Your task to perform on an android device: change text size in settings app Image 0: 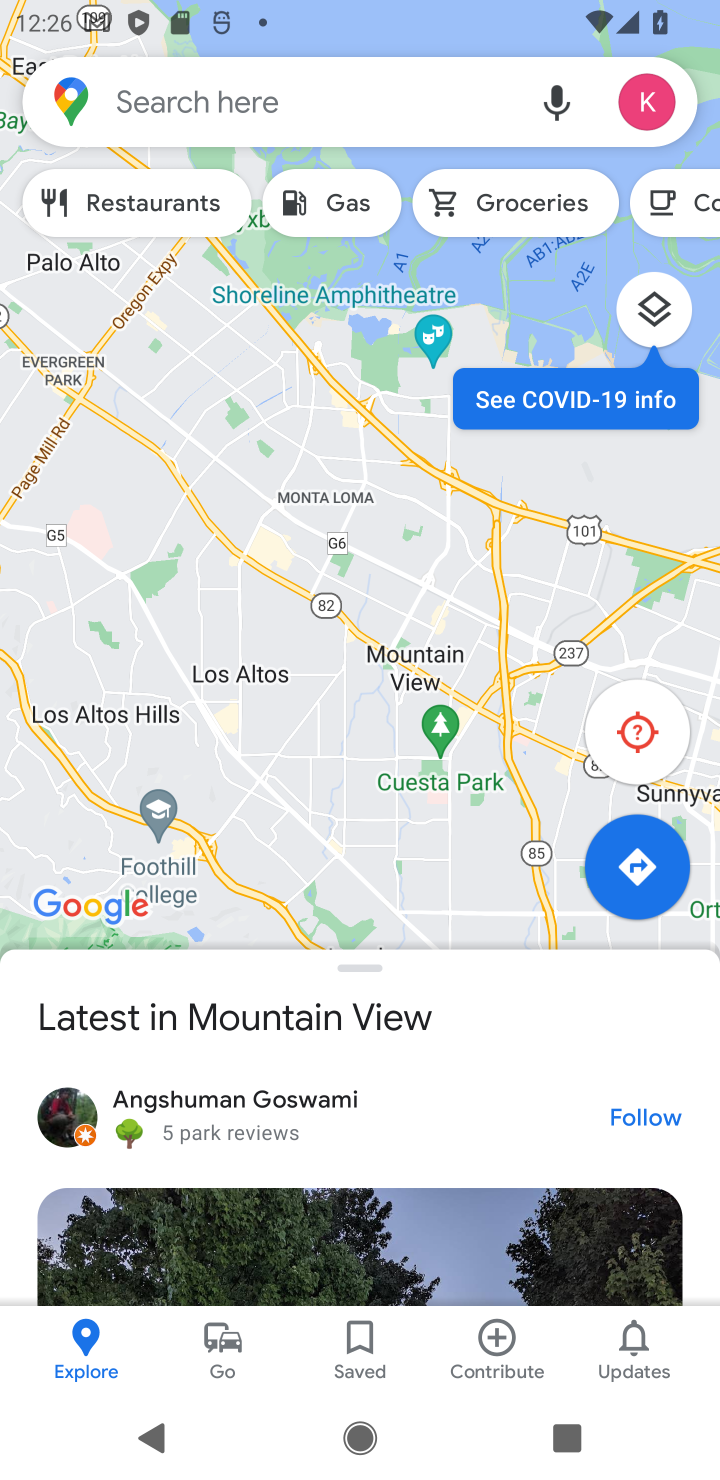
Step 0: press home button
Your task to perform on an android device: change text size in settings app Image 1: 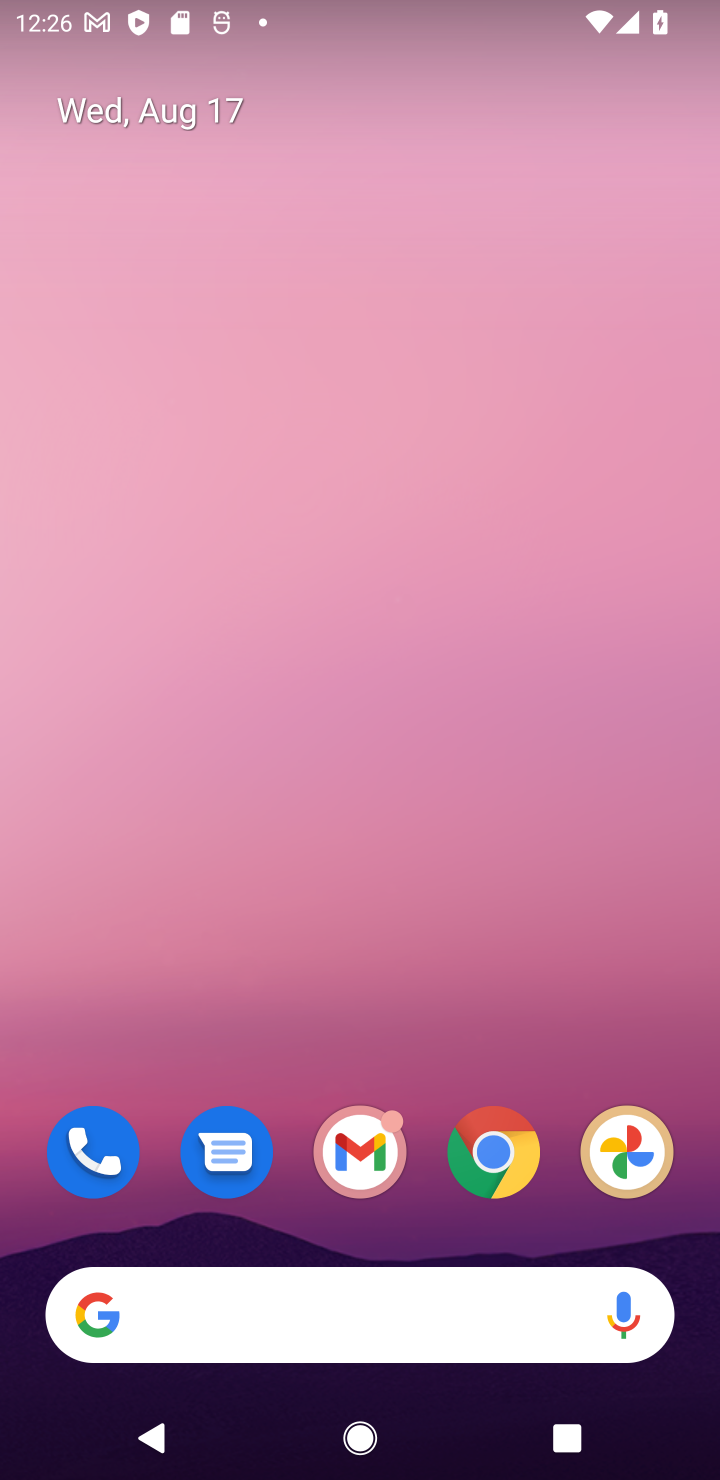
Step 1: drag from (591, 1206) to (242, 7)
Your task to perform on an android device: change text size in settings app Image 2: 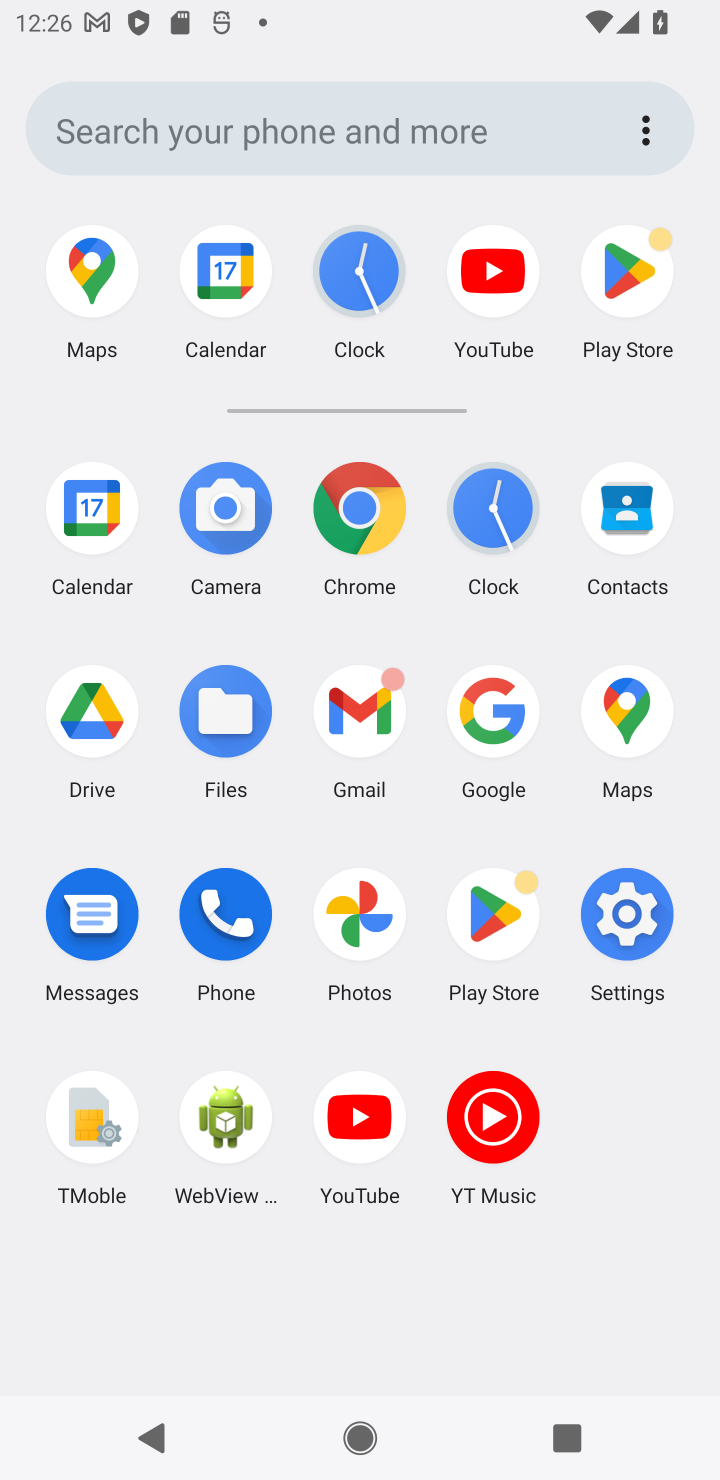
Step 2: click (634, 943)
Your task to perform on an android device: change text size in settings app Image 3: 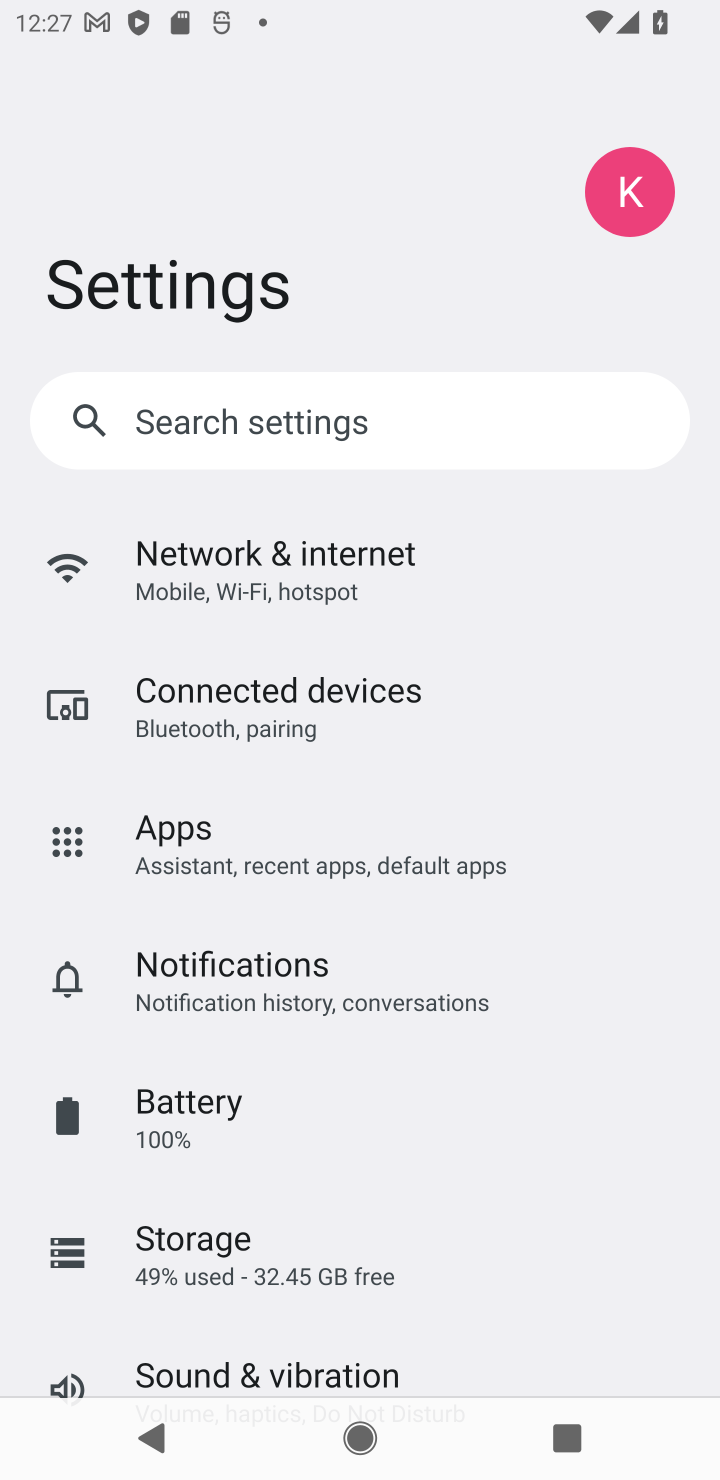
Step 3: drag from (257, 1213) to (225, 388)
Your task to perform on an android device: change text size in settings app Image 4: 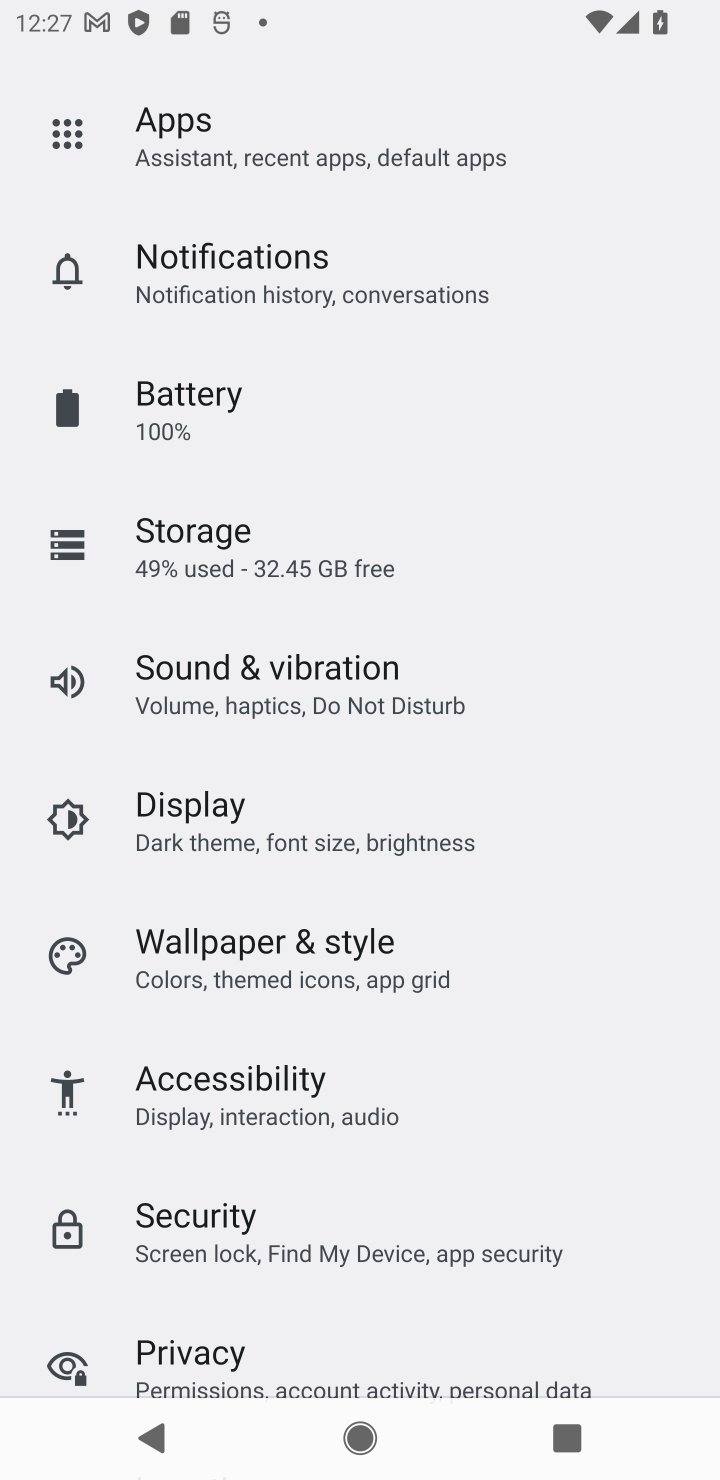
Step 4: click (240, 808)
Your task to perform on an android device: change text size in settings app Image 5: 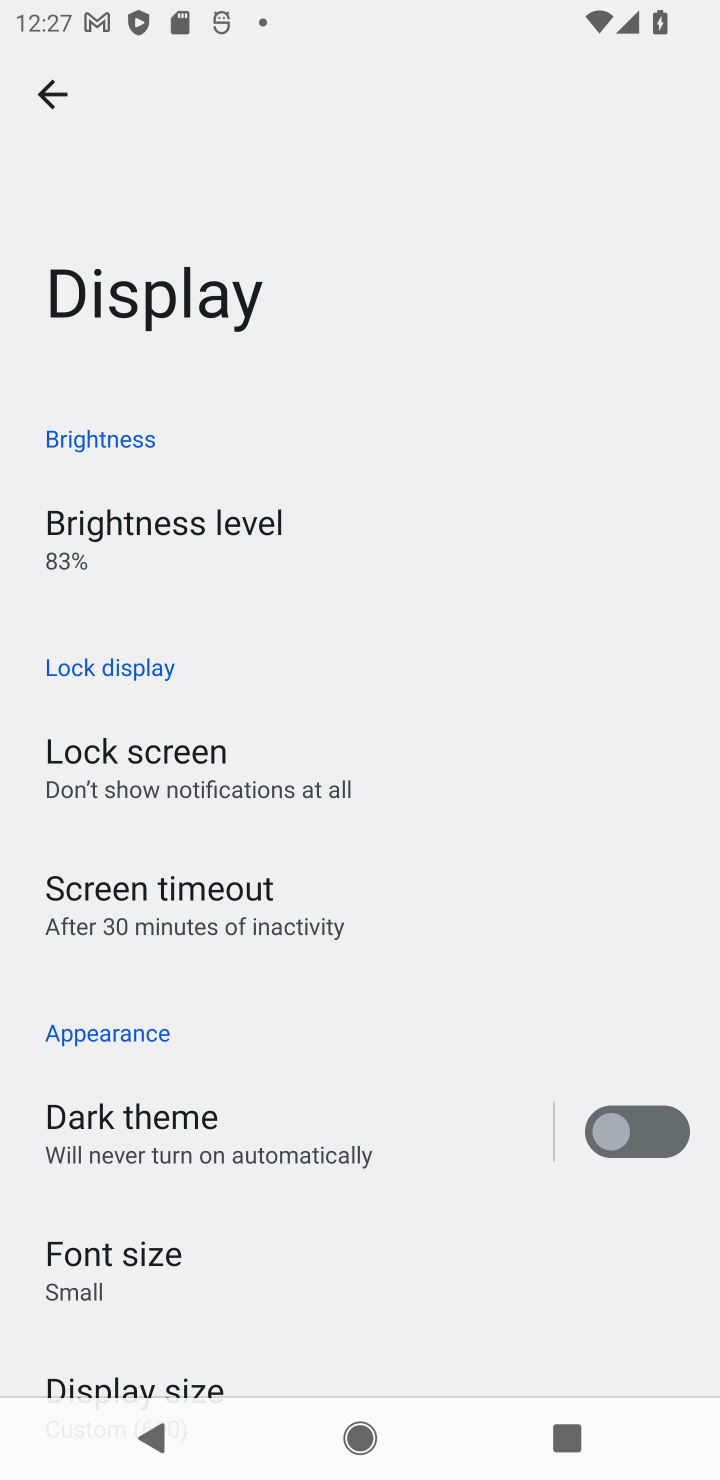
Step 5: click (145, 1276)
Your task to perform on an android device: change text size in settings app Image 6: 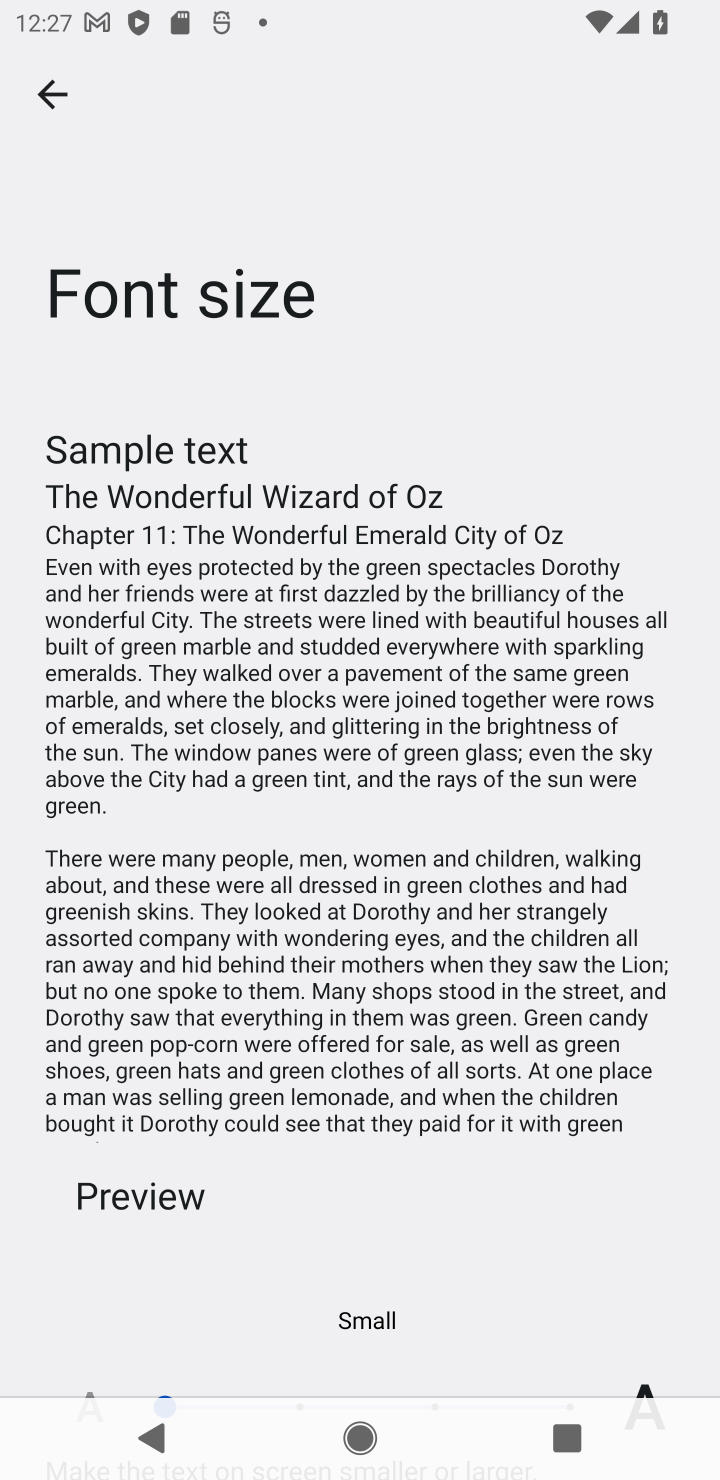
Step 6: drag from (468, 1312) to (352, 493)
Your task to perform on an android device: change text size in settings app Image 7: 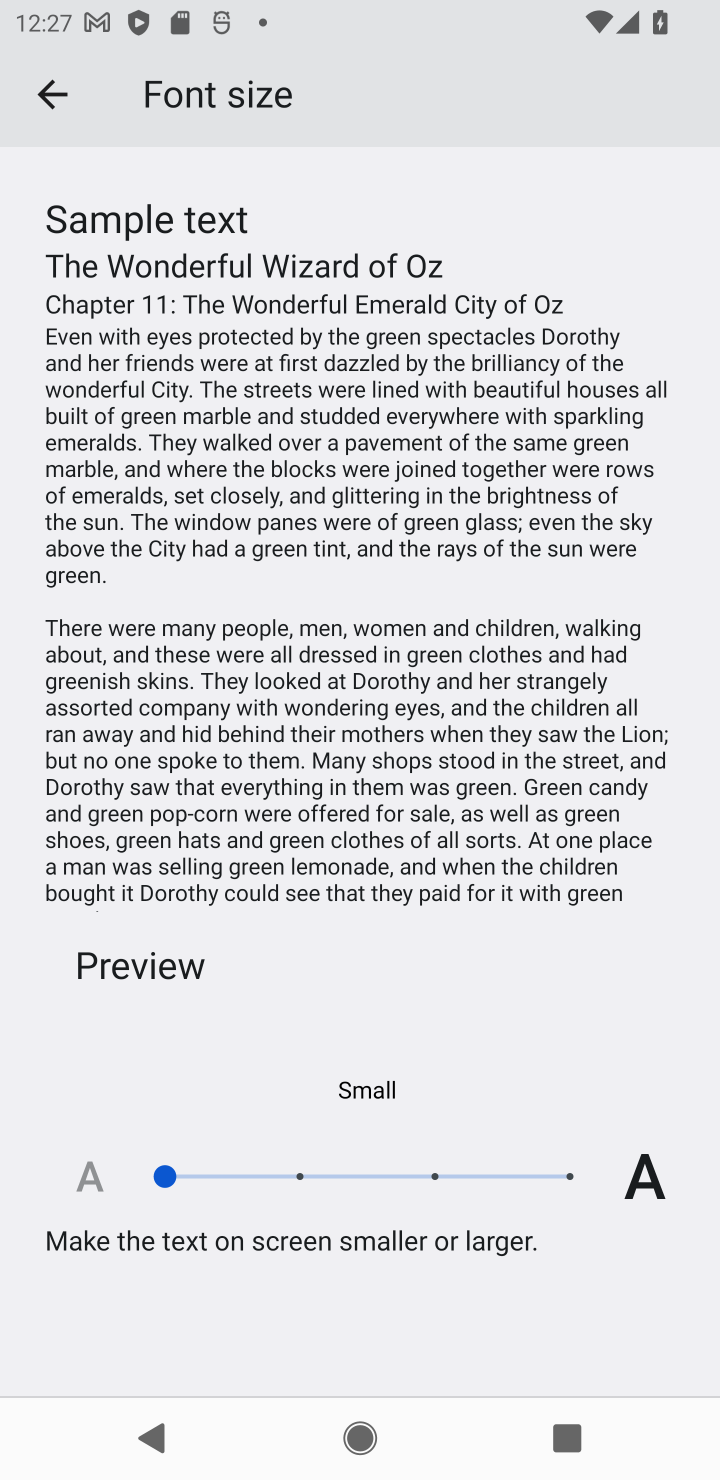
Step 7: click (440, 1294)
Your task to perform on an android device: change text size in settings app Image 8: 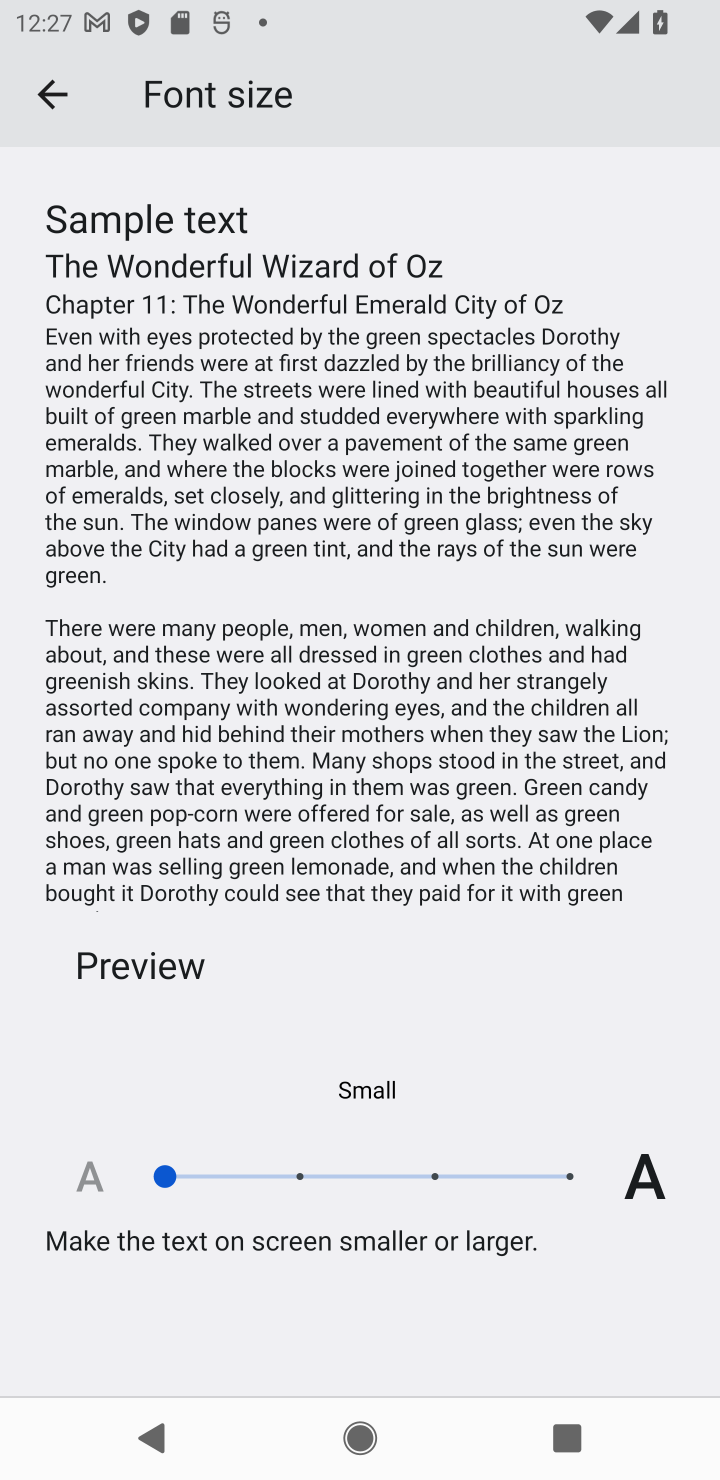
Step 8: click (434, 1174)
Your task to perform on an android device: change text size in settings app Image 9: 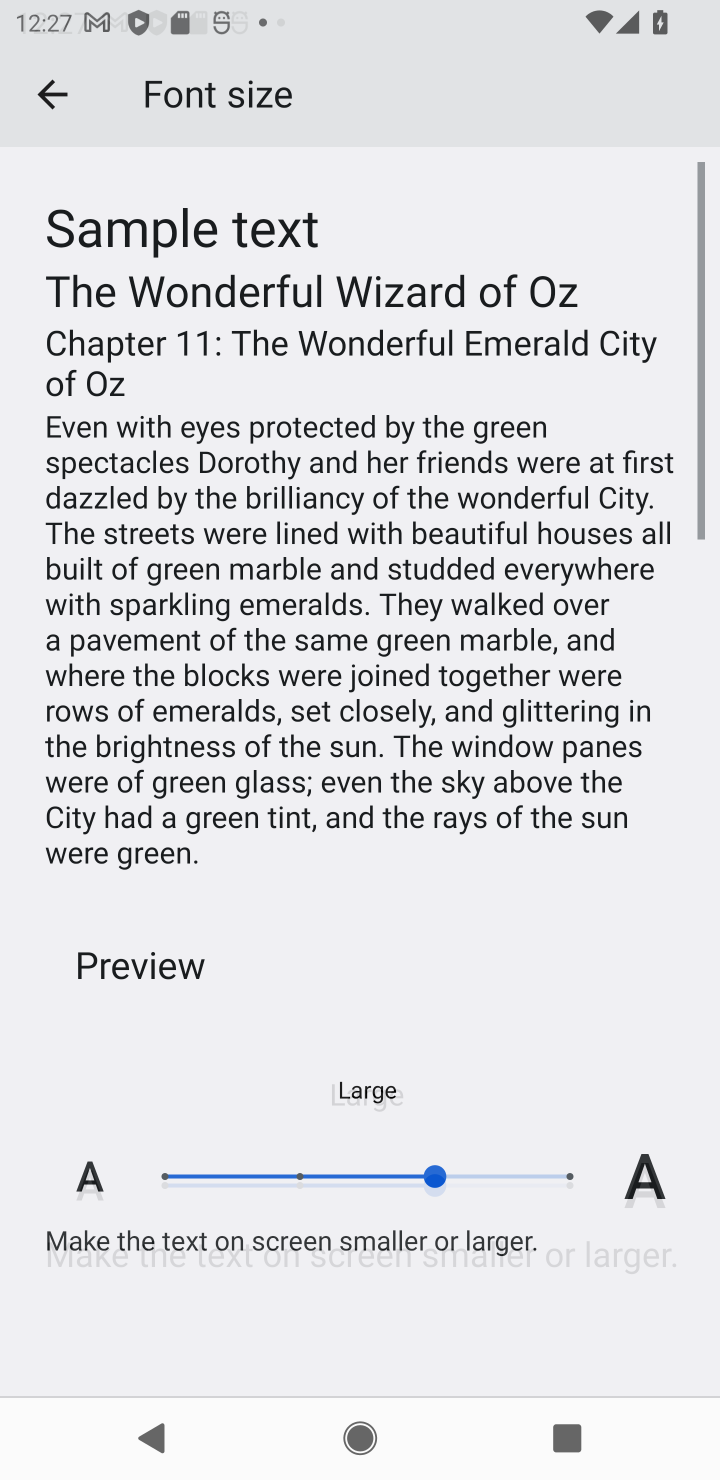
Step 9: task complete